Your task to perform on an android device: What is the recent news? Image 0: 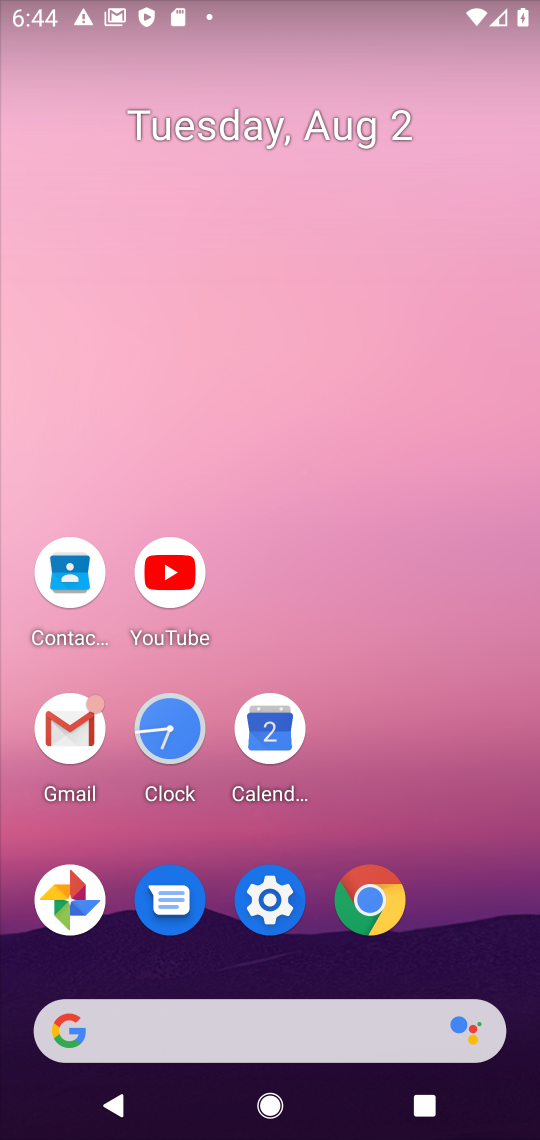
Step 0: drag from (4, 331) to (525, 354)
Your task to perform on an android device: What is the recent news? Image 1: 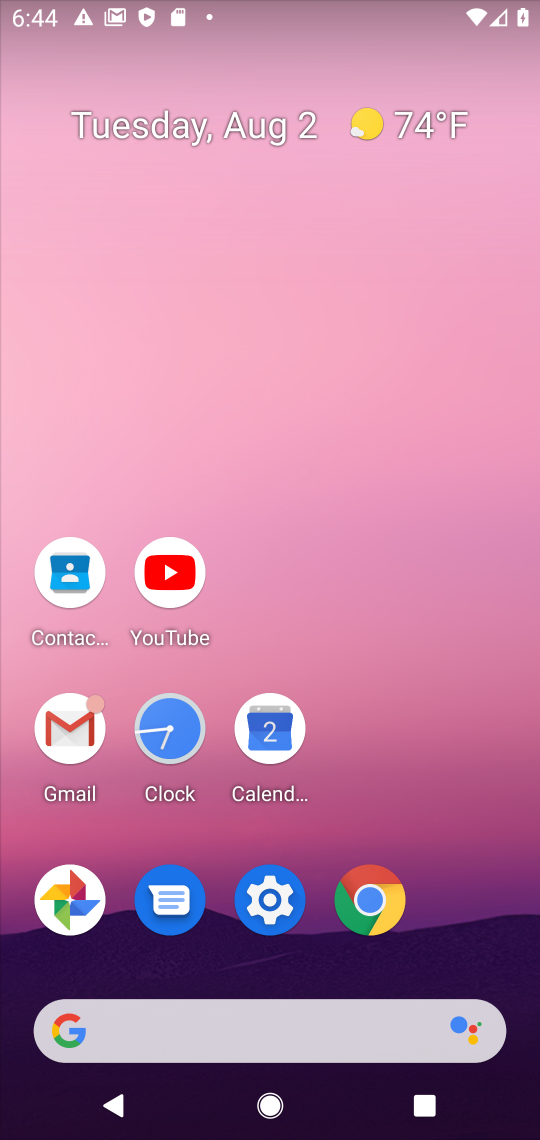
Step 1: task complete